Your task to perform on an android device: change the clock display to show seconds Image 0: 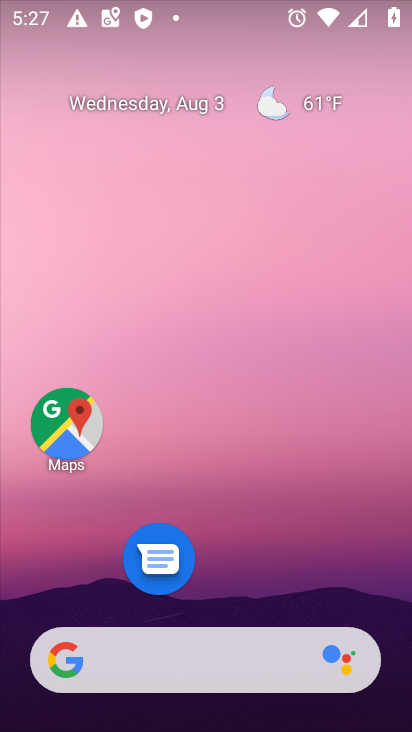
Step 0: drag from (165, 604) to (186, 167)
Your task to perform on an android device: change the clock display to show seconds Image 1: 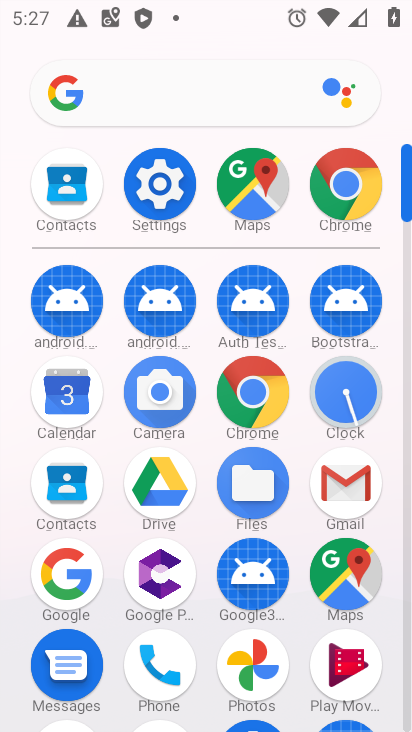
Step 1: click (351, 394)
Your task to perform on an android device: change the clock display to show seconds Image 2: 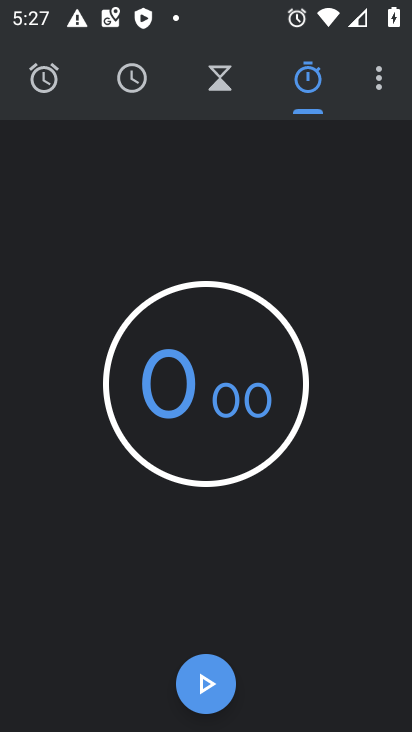
Step 2: click (377, 86)
Your task to perform on an android device: change the clock display to show seconds Image 3: 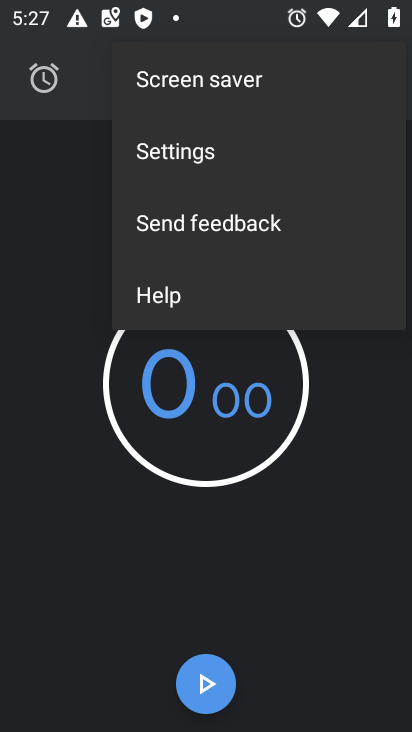
Step 3: click (179, 152)
Your task to perform on an android device: change the clock display to show seconds Image 4: 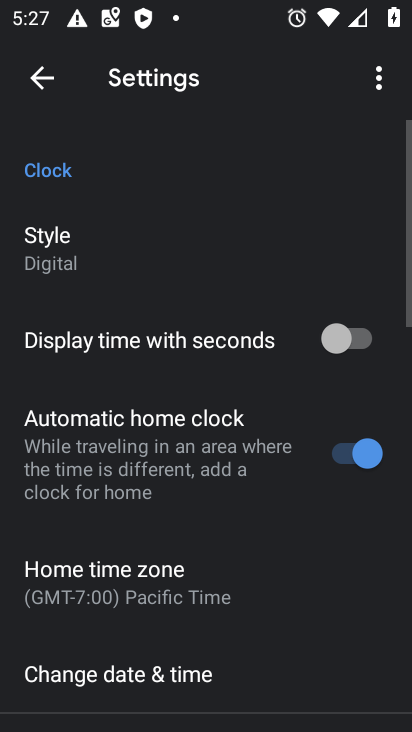
Step 4: click (368, 334)
Your task to perform on an android device: change the clock display to show seconds Image 5: 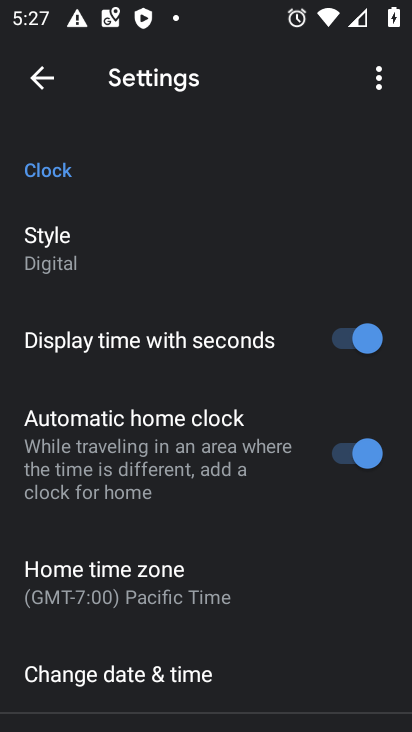
Step 5: task complete